Your task to perform on an android device: open app "Fetch Rewards" (install if not already installed) Image 0: 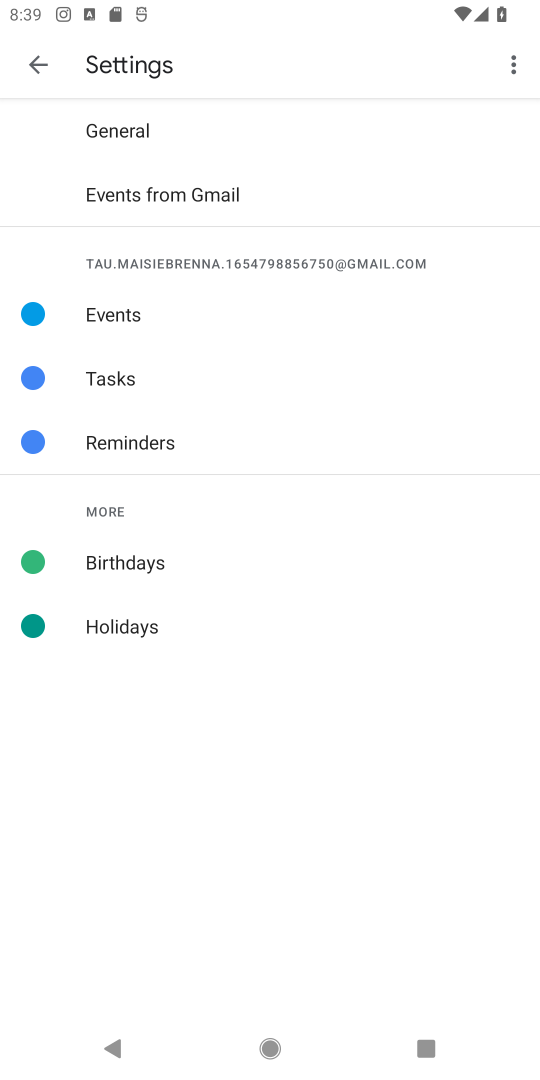
Step 0: press home button
Your task to perform on an android device: open app "Fetch Rewards" (install if not already installed) Image 1: 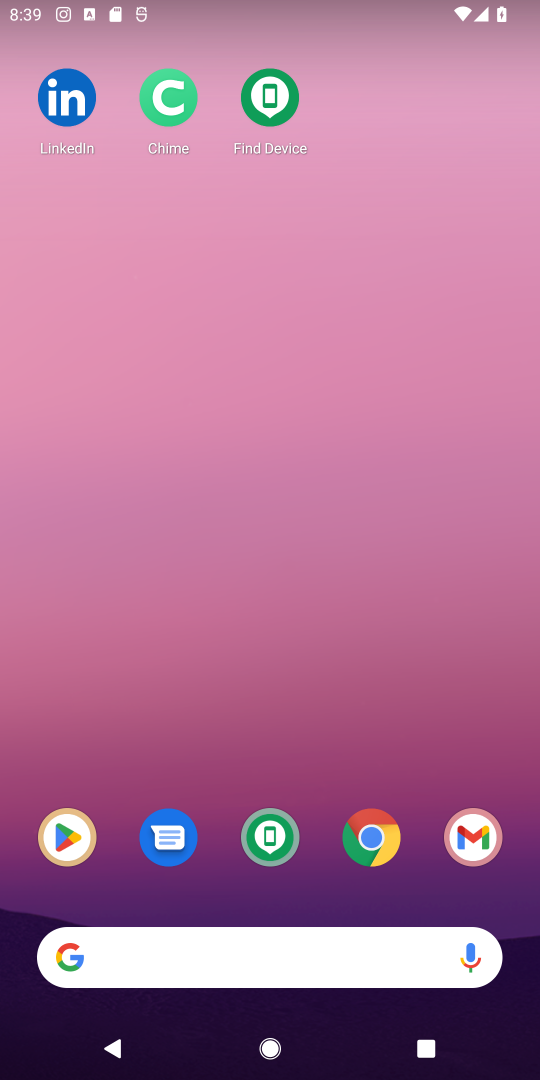
Step 1: click (57, 841)
Your task to perform on an android device: open app "Fetch Rewards" (install if not already installed) Image 2: 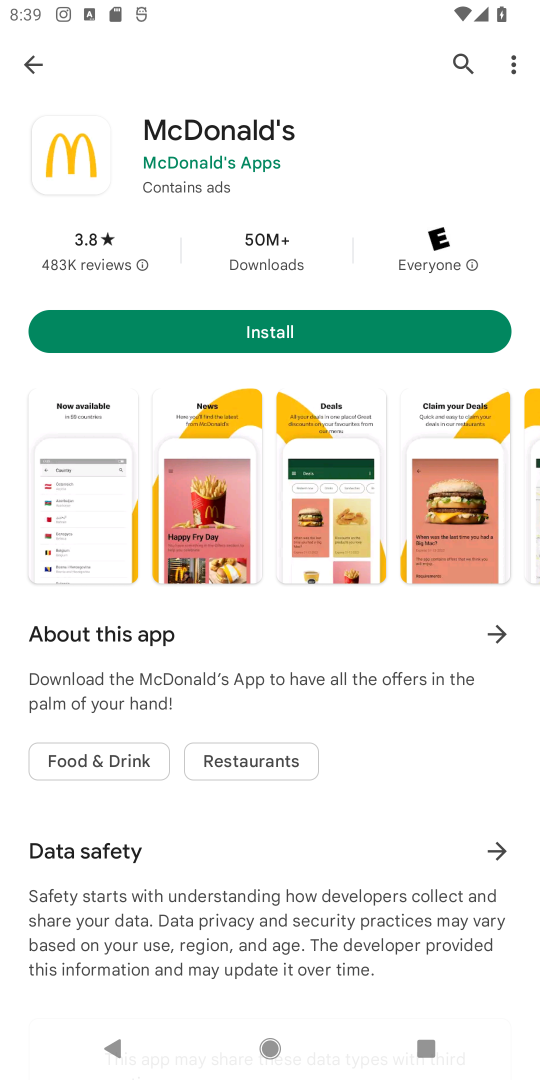
Step 2: click (463, 58)
Your task to perform on an android device: open app "Fetch Rewards" (install if not already installed) Image 3: 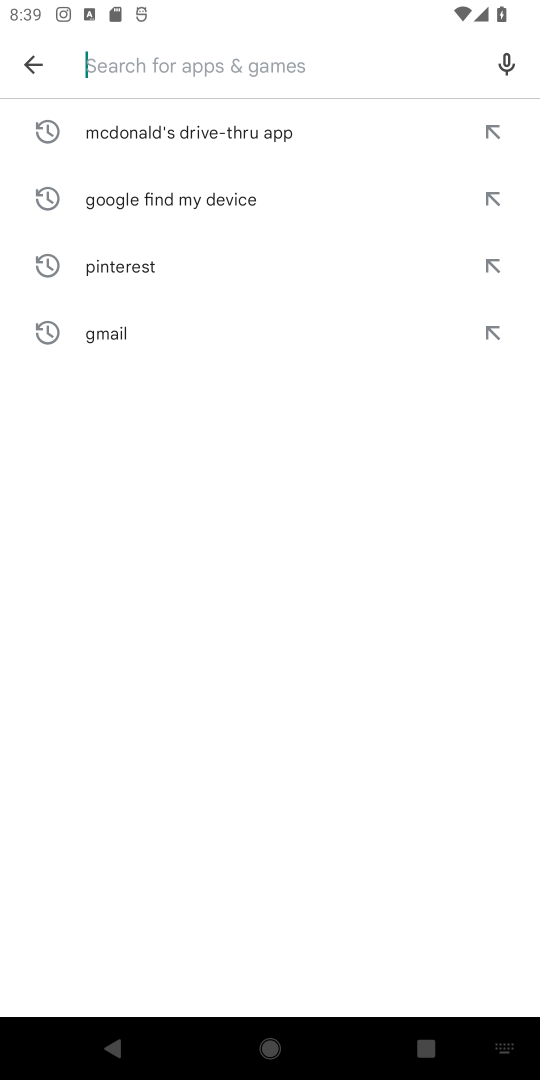
Step 3: type "Fetch Rewards"
Your task to perform on an android device: open app "Fetch Rewards" (install if not already installed) Image 4: 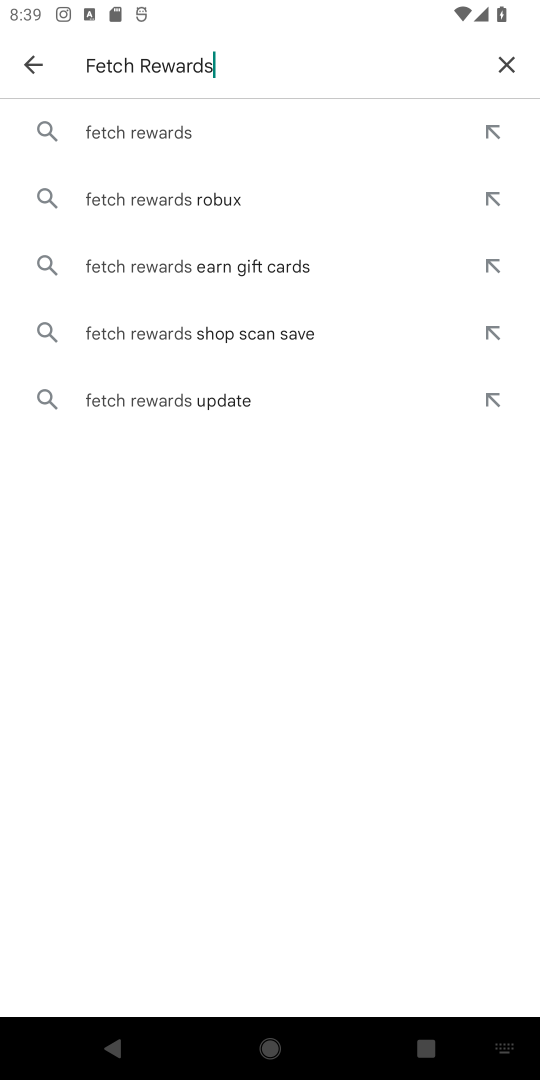
Step 4: click (148, 144)
Your task to perform on an android device: open app "Fetch Rewards" (install if not already installed) Image 5: 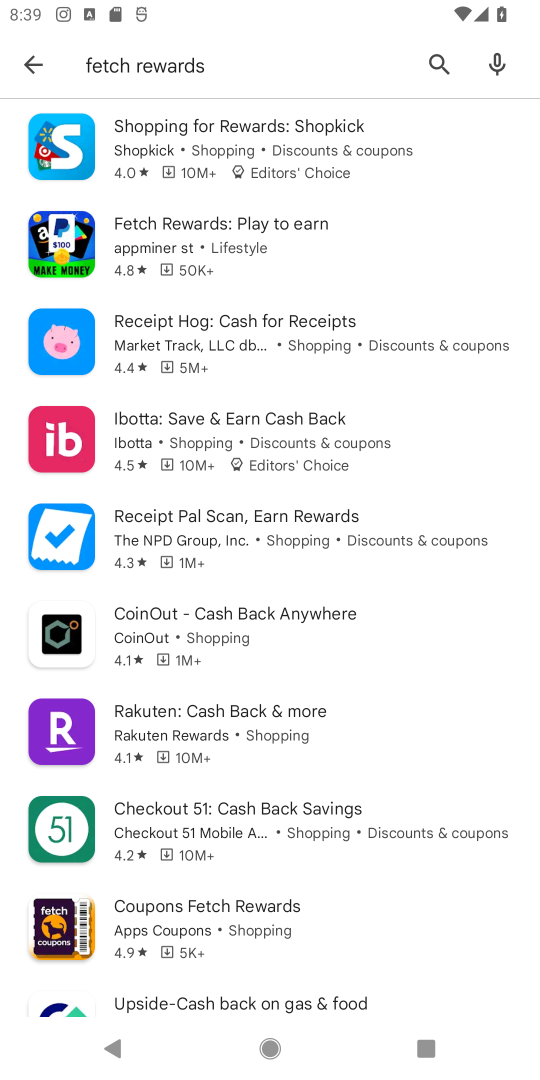
Step 5: click (132, 238)
Your task to perform on an android device: open app "Fetch Rewards" (install if not already installed) Image 6: 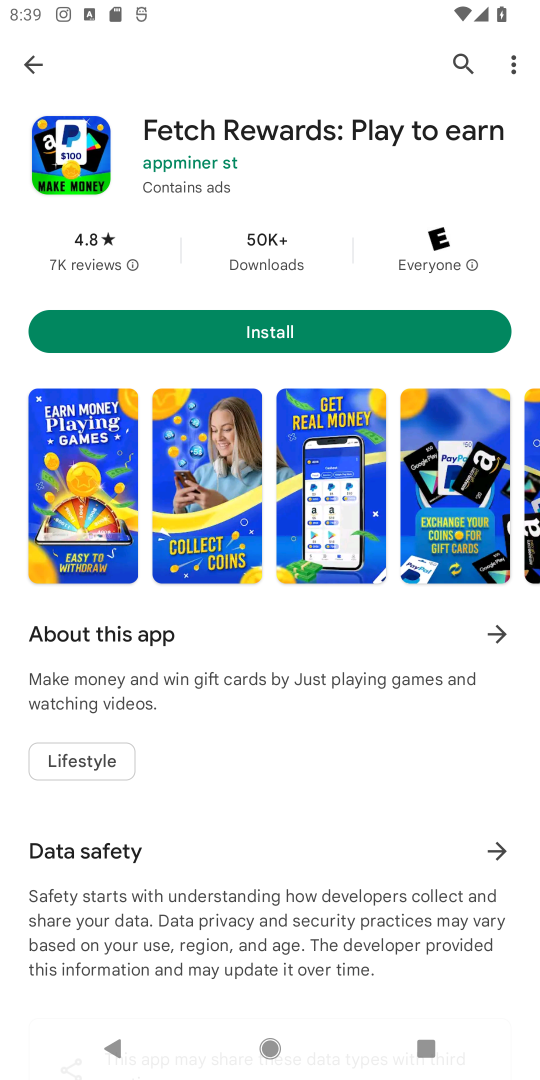
Step 6: click (270, 338)
Your task to perform on an android device: open app "Fetch Rewards" (install if not already installed) Image 7: 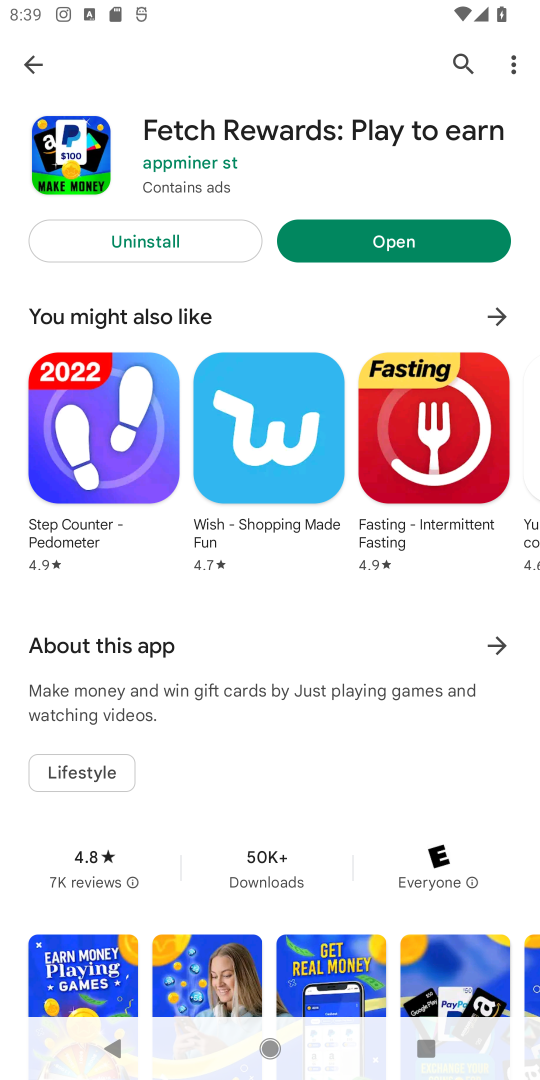
Step 7: click (398, 249)
Your task to perform on an android device: open app "Fetch Rewards" (install if not already installed) Image 8: 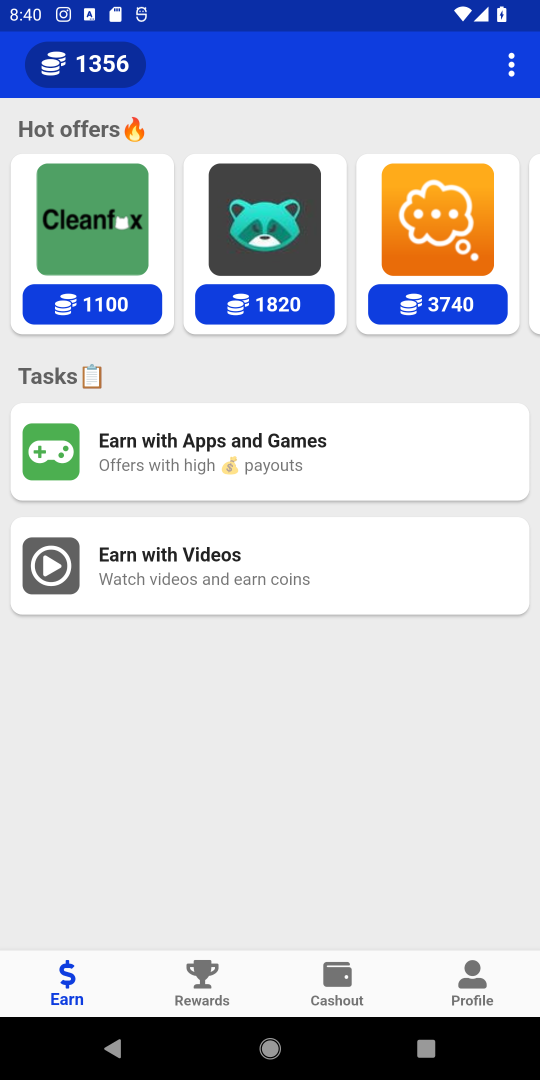
Step 8: task complete